Your task to perform on an android device: Go to Maps Image 0: 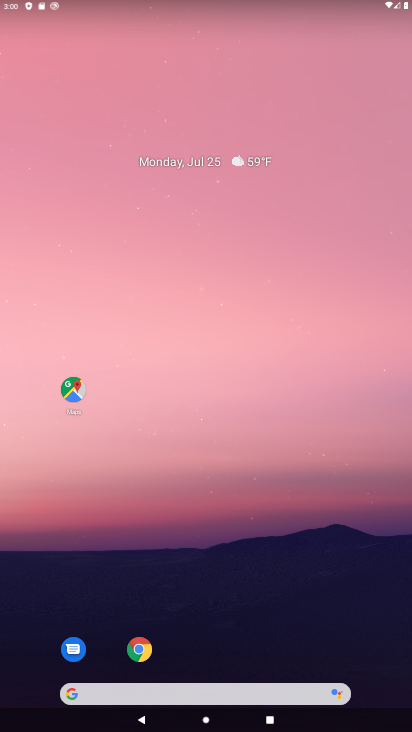
Step 0: click (74, 385)
Your task to perform on an android device: Go to Maps Image 1: 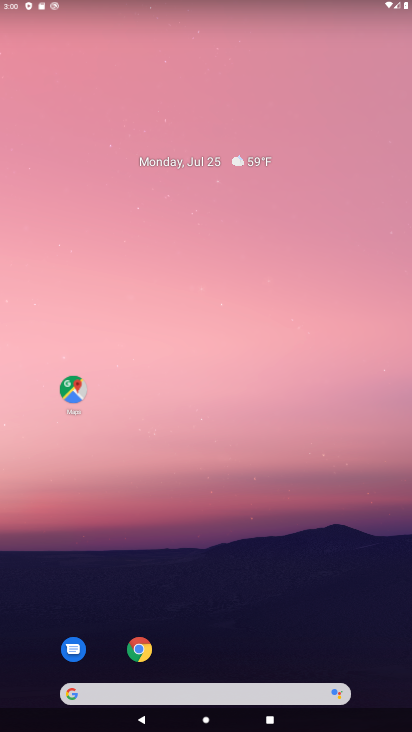
Step 1: click (74, 385)
Your task to perform on an android device: Go to Maps Image 2: 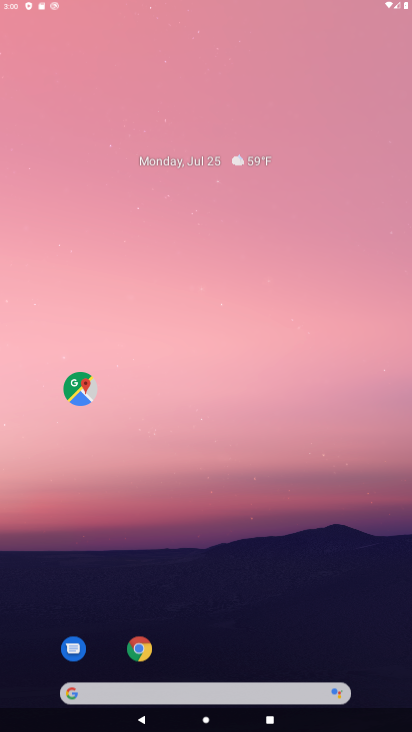
Step 2: click (74, 385)
Your task to perform on an android device: Go to Maps Image 3: 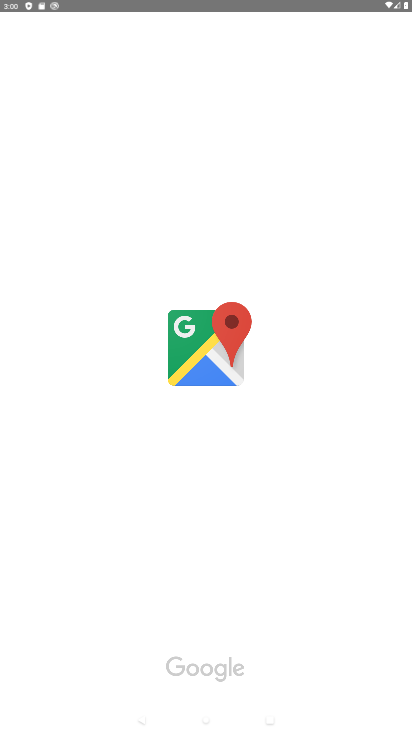
Step 3: click (74, 385)
Your task to perform on an android device: Go to Maps Image 4: 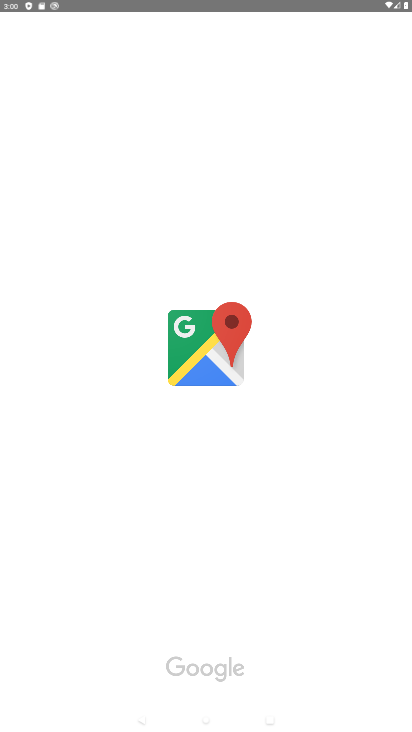
Step 4: click (74, 385)
Your task to perform on an android device: Go to Maps Image 5: 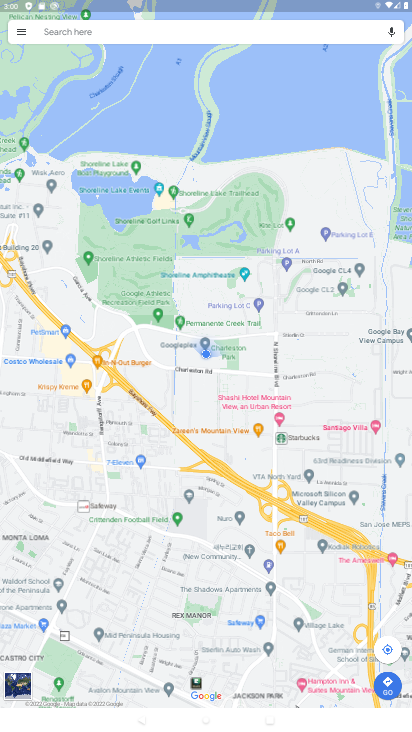
Step 5: task complete